Your task to perform on an android device: Go to display settings Image 0: 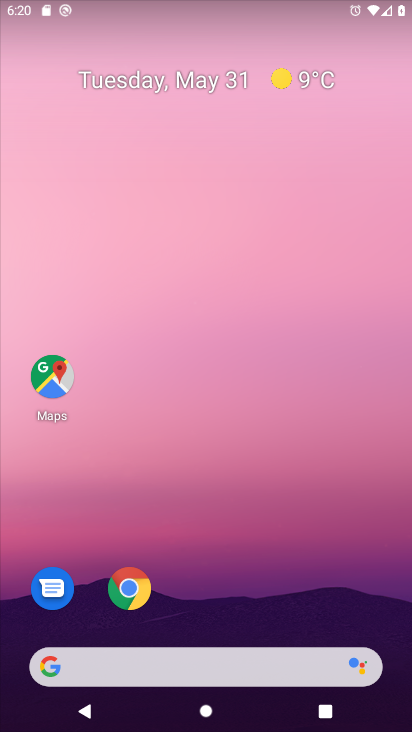
Step 0: drag from (231, 621) to (218, 281)
Your task to perform on an android device: Go to display settings Image 1: 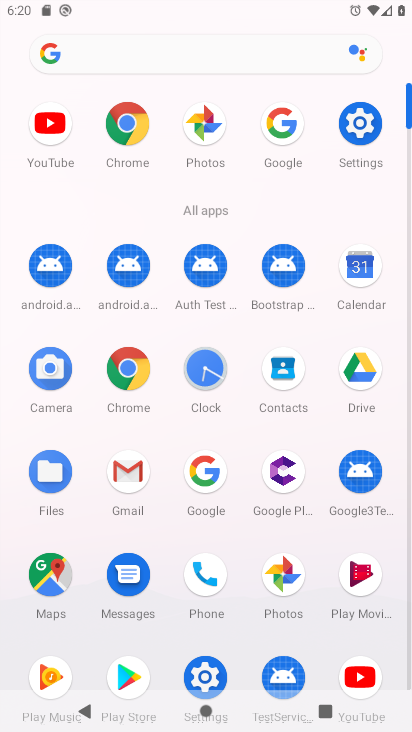
Step 1: click (361, 122)
Your task to perform on an android device: Go to display settings Image 2: 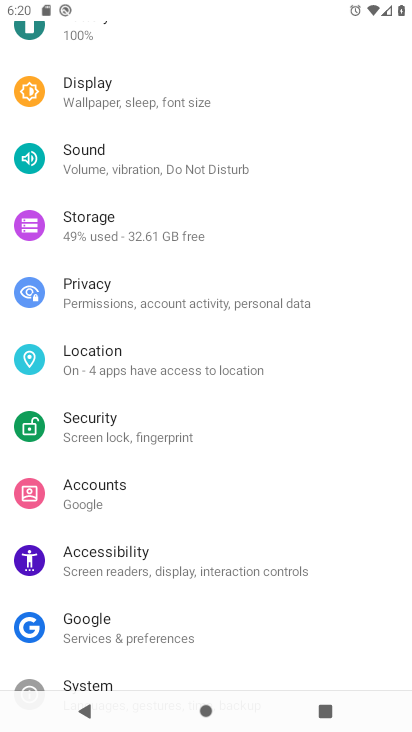
Step 2: click (98, 110)
Your task to perform on an android device: Go to display settings Image 3: 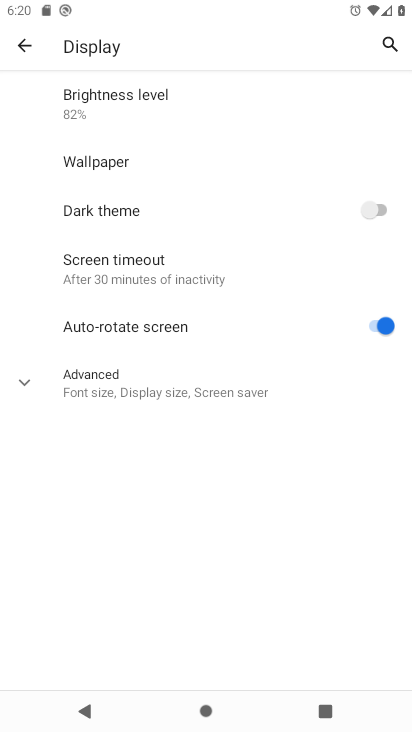
Step 3: task complete